Your task to perform on an android device: What's the weather today? Image 0: 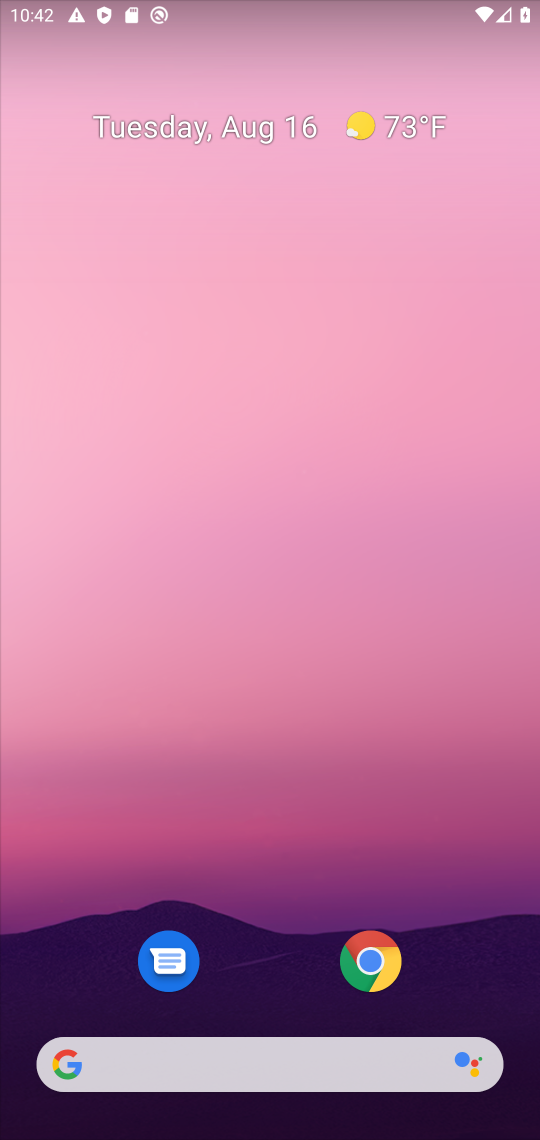
Step 0: click (282, 775)
Your task to perform on an android device: What's the weather today? Image 1: 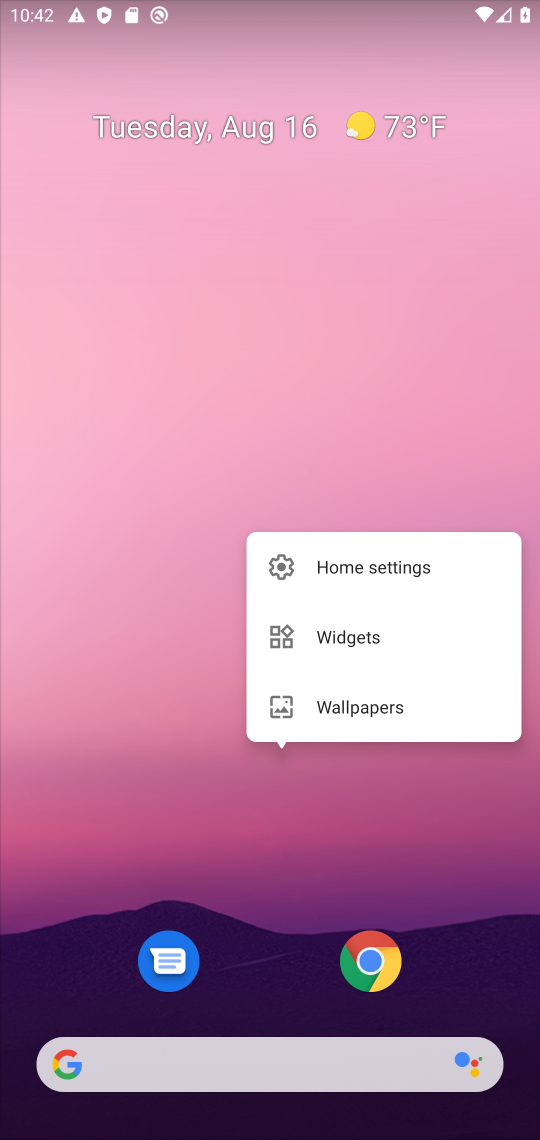
Step 1: click (178, 1111)
Your task to perform on an android device: What's the weather today? Image 2: 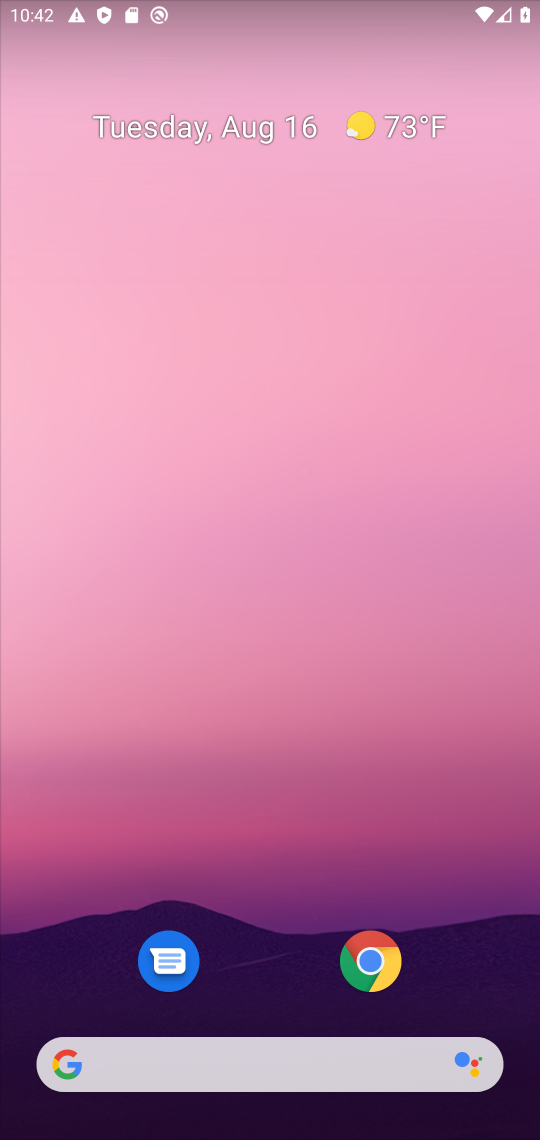
Step 2: click (350, 1069)
Your task to perform on an android device: What's the weather today? Image 3: 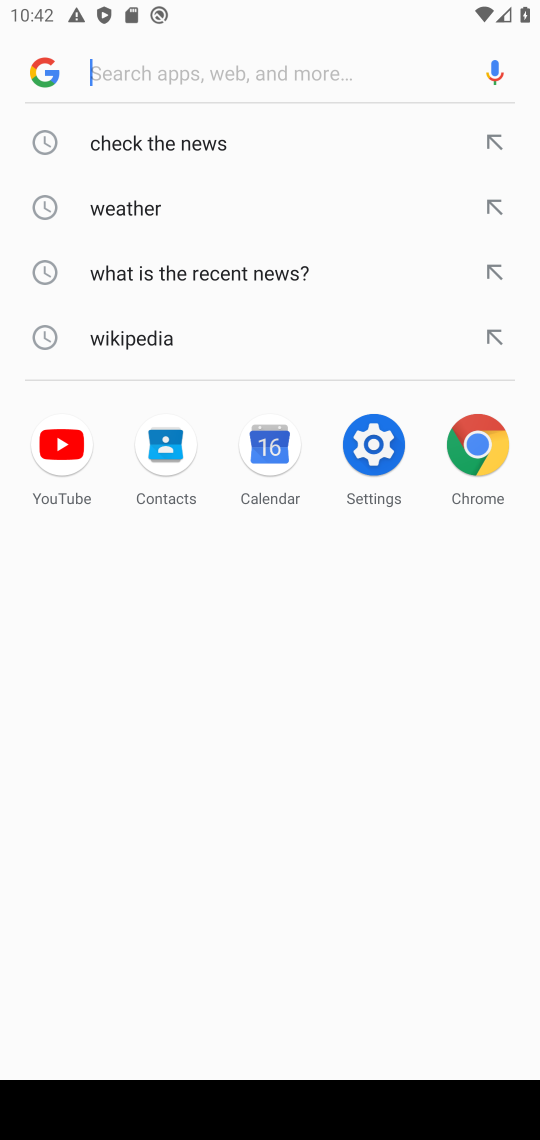
Step 3: type " What's the weather today?"
Your task to perform on an android device: What's the weather today? Image 4: 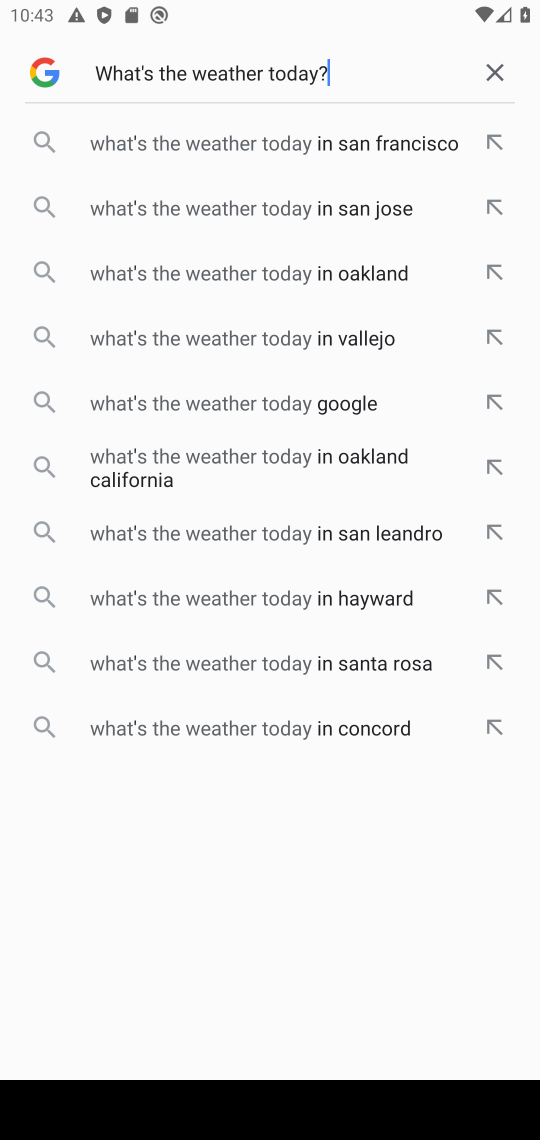
Step 4: press enter
Your task to perform on an android device: What's the weather today? Image 5: 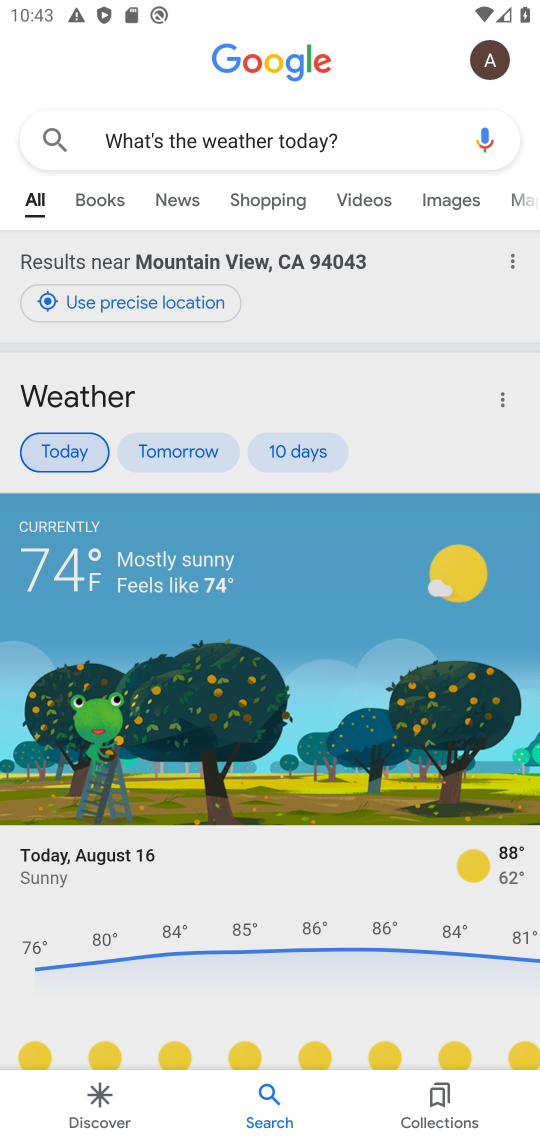
Step 5: task complete